Your task to perform on an android device: Open Google Image 0: 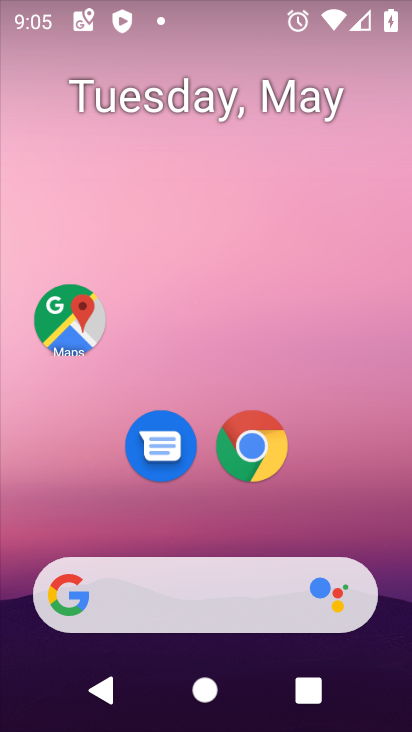
Step 0: drag from (372, 542) to (335, 3)
Your task to perform on an android device: Open Google Image 1: 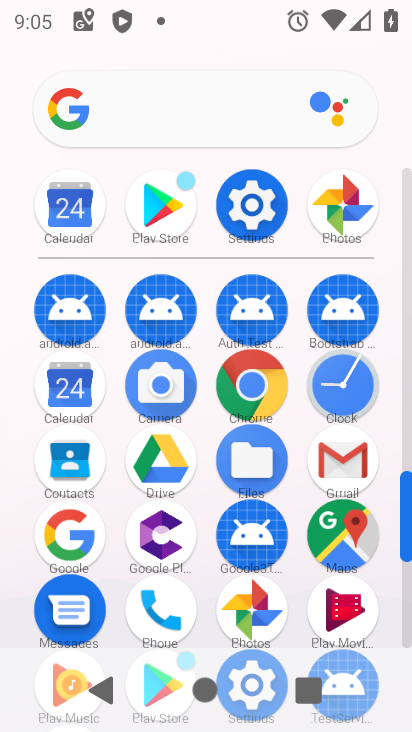
Step 1: click (61, 527)
Your task to perform on an android device: Open Google Image 2: 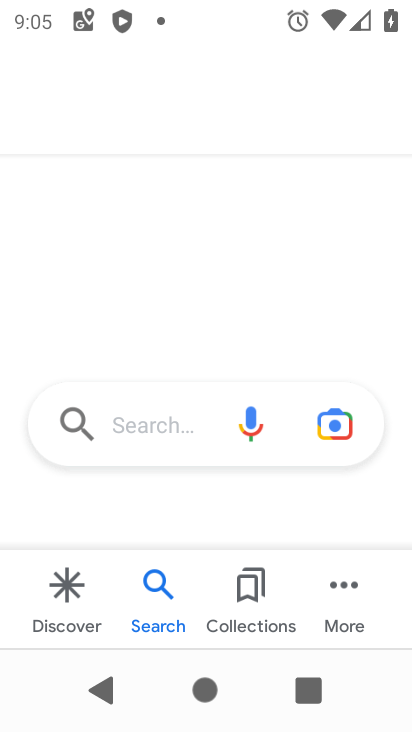
Step 2: task complete